Your task to perform on an android device: Search for razer deathadder on walmart, select the first entry, and add it to the cart. Image 0: 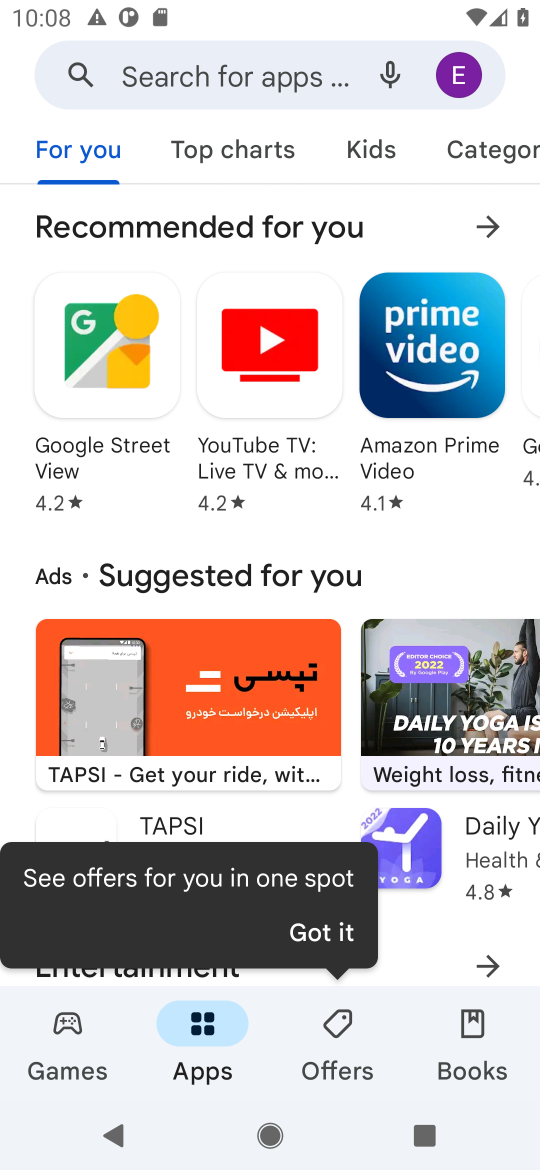
Step 0: press home button
Your task to perform on an android device: Search for razer deathadder on walmart, select the first entry, and add it to the cart. Image 1: 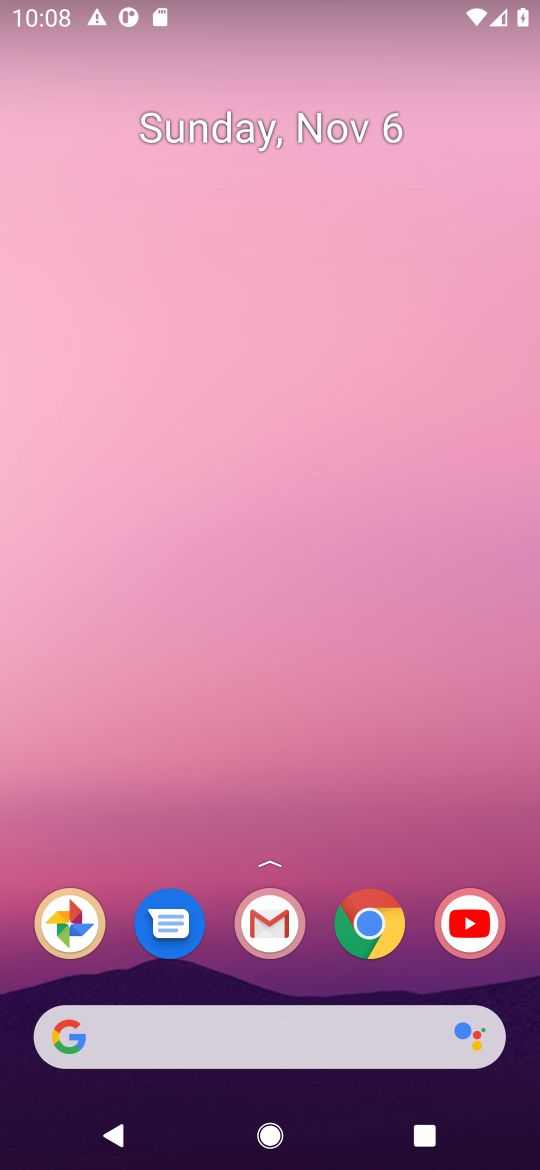
Step 1: click (380, 933)
Your task to perform on an android device: Search for razer deathadder on walmart, select the first entry, and add it to the cart. Image 2: 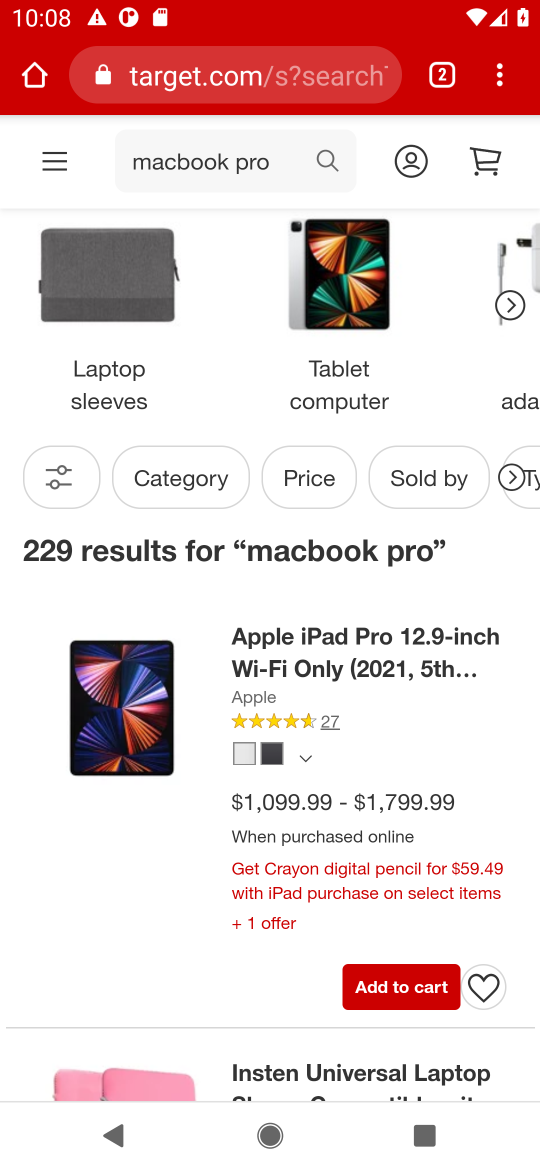
Step 2: click (251, 69)
Your task to perform on an android device: Search for razer deathadder on walmart, select the first entry, and add it to the cart. Image 3: 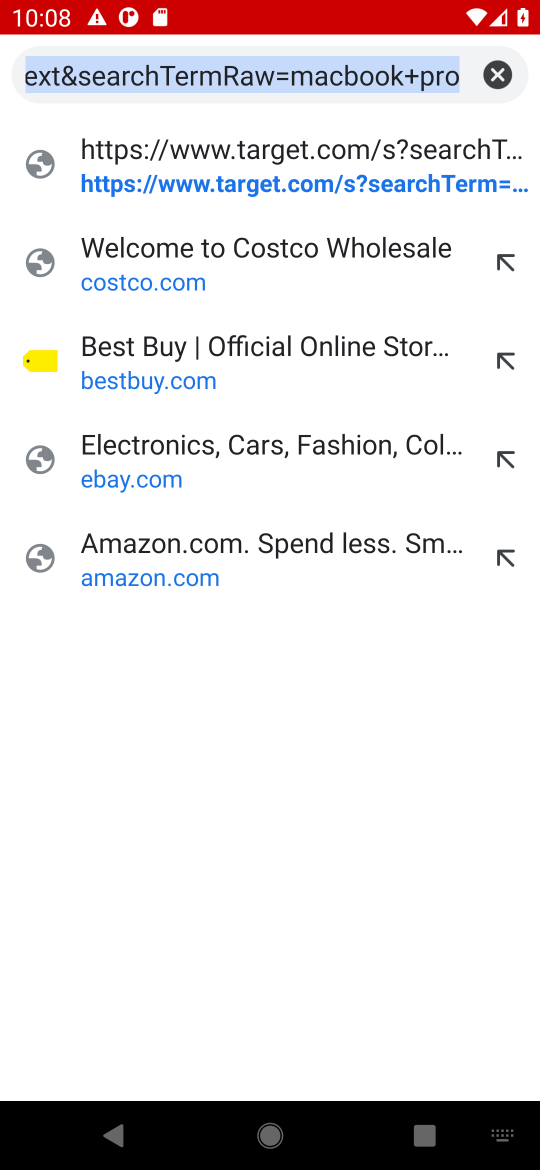
Step 3: type "walmart.com"
Your task to perform on an android device: Search for razer deathadder on walmart, select the first entry, and add it to the cart. Image 4: 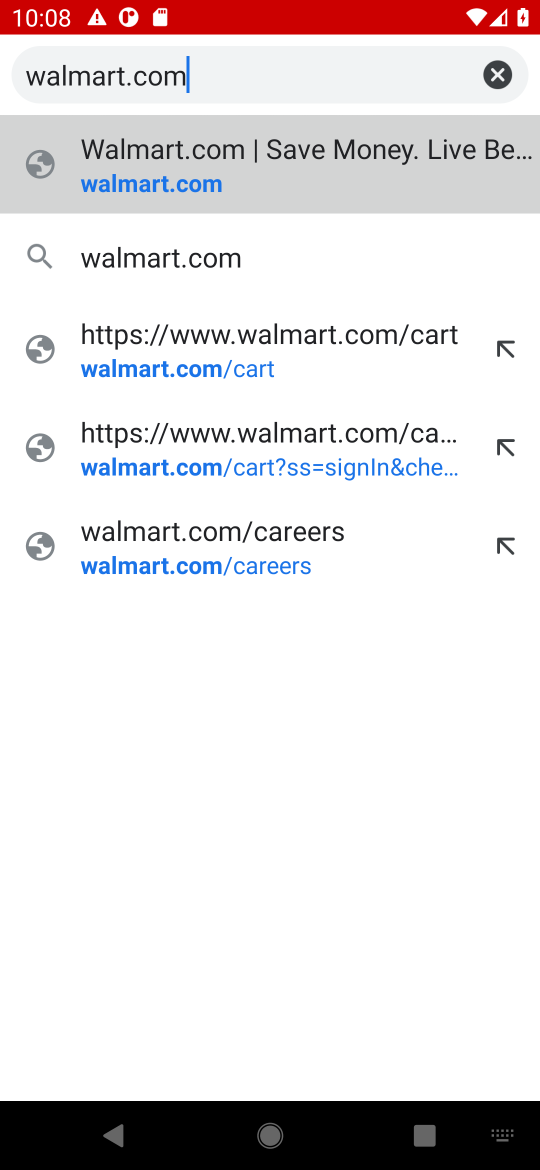
Step 4: click (158, 186)
Your task to perform on an android device: Search for razer deathadder on walmart, select the first entry, and add it to the cart. Image 5: 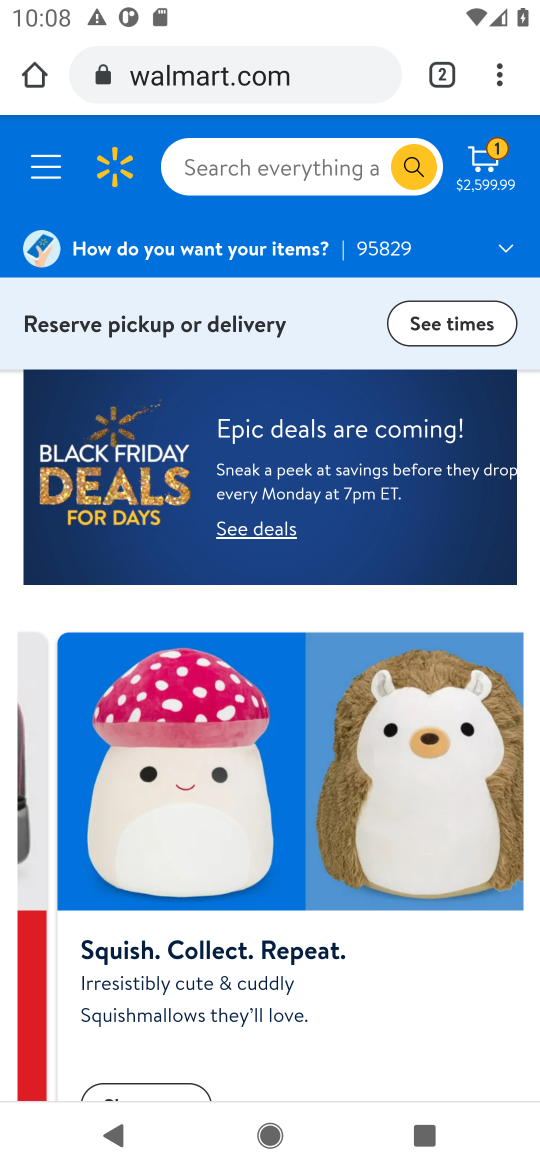
Step 5: click (283, 170)
Your task to perform on an android device: Search for razer deathadder on walmart, select the first entry, and add it to the cart. Image 6: 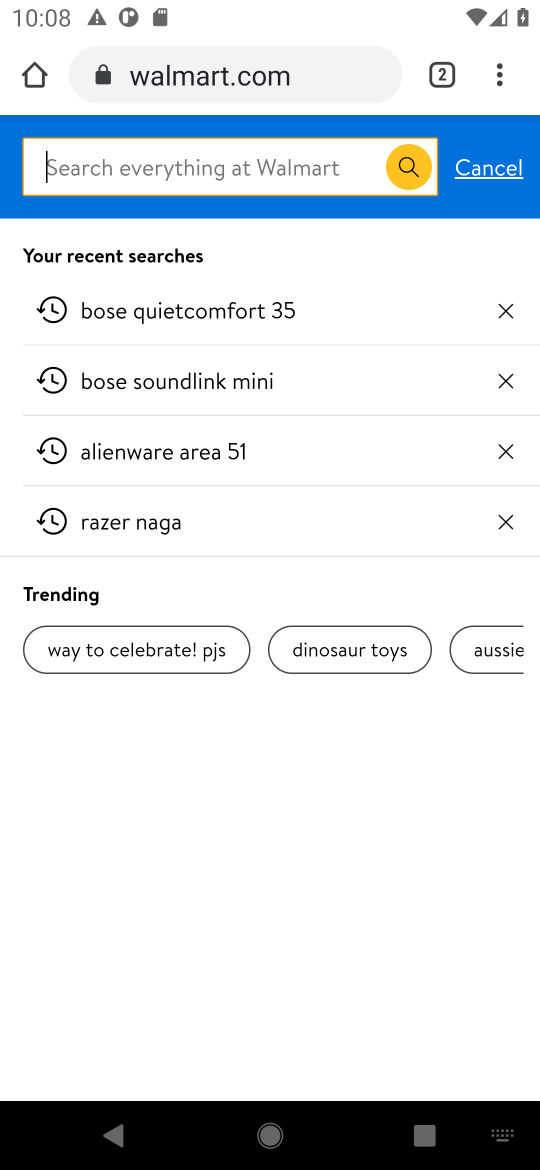
Step 6: type " razer deathadder"
Your task to perform on an android device: Search for razer deathadder on walmart, select the first entry, and add it to the cart. Image 7: 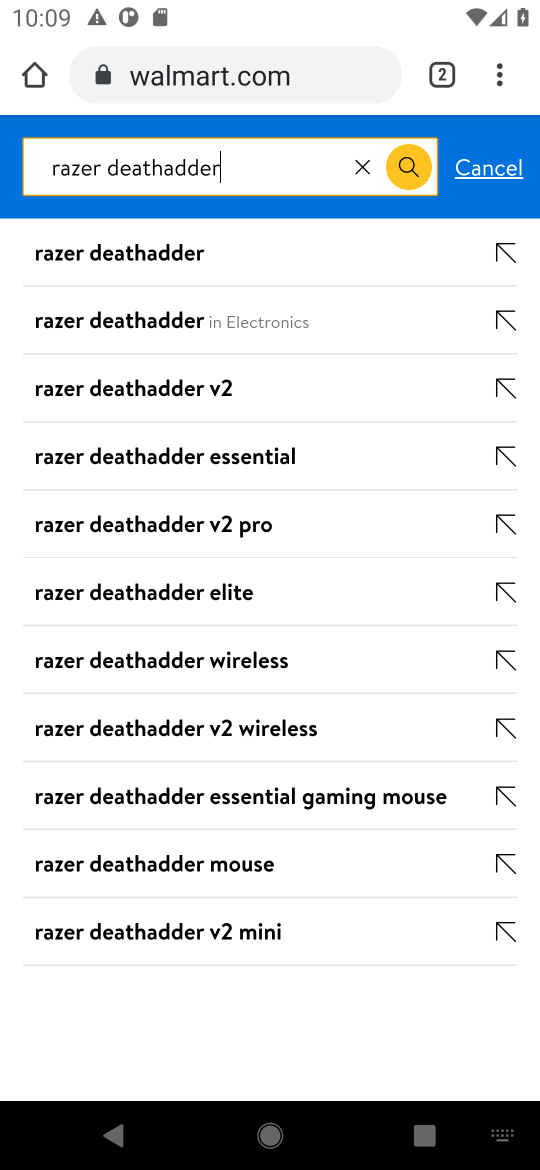
Step 7: click (168, 256)
Your task to perform on an android device: Search for razer deathadder on walmart, select the first entry, and add it to the cart. Image 8: 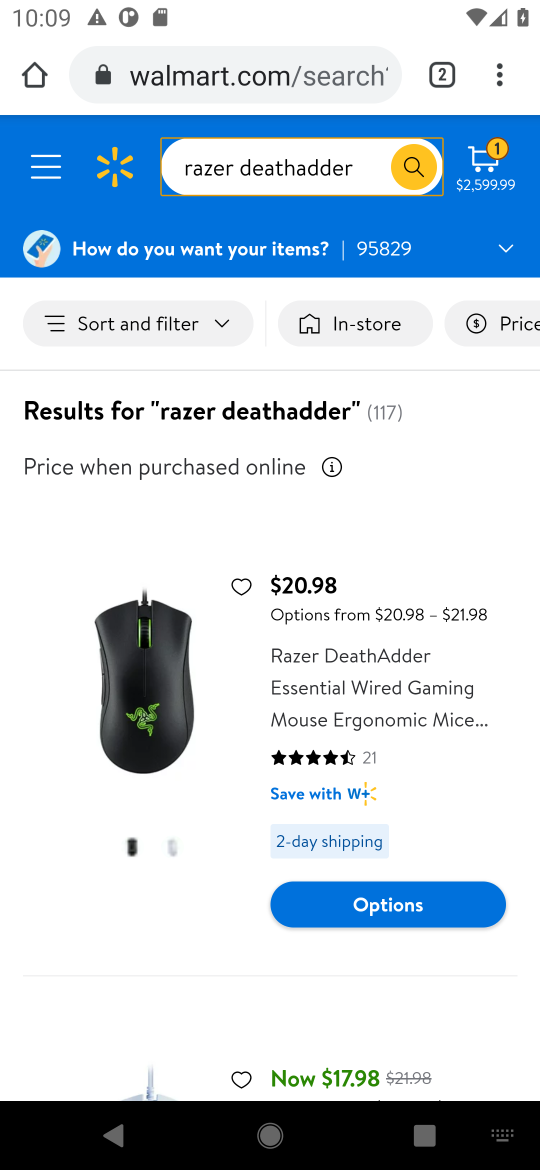
Step 8: click (184, 696)
Your task to perform on an android device: Search for razer deathadder on walmart, select the first entry, and add it to the cart. Image 9: 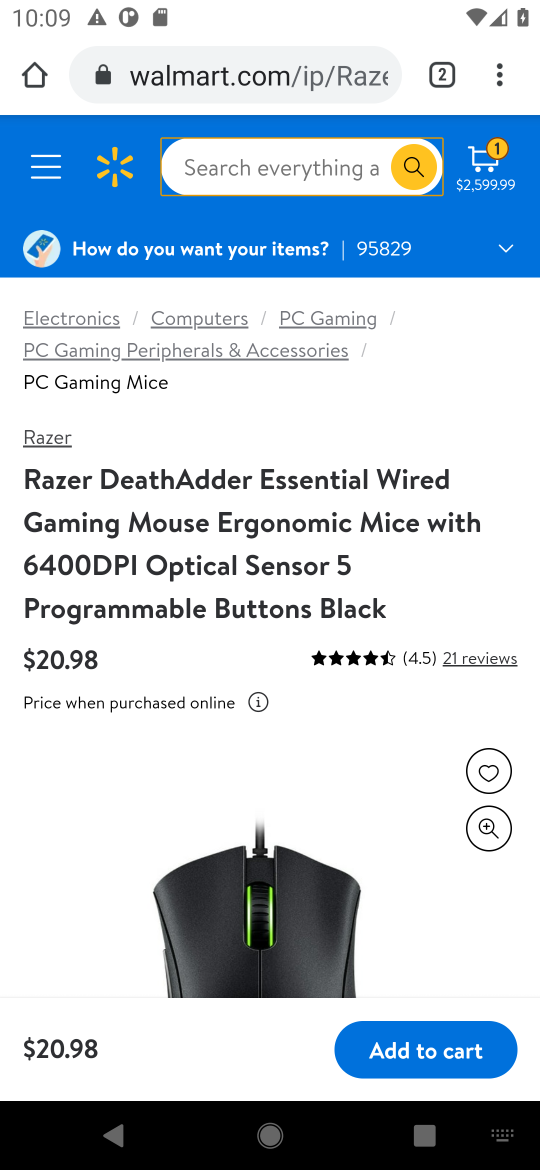
Step 9: click (128, 681)
Your task to perform on an android device: Search for razer deathadder on walmart, select the first entry, and add it to the cart. Image 10: 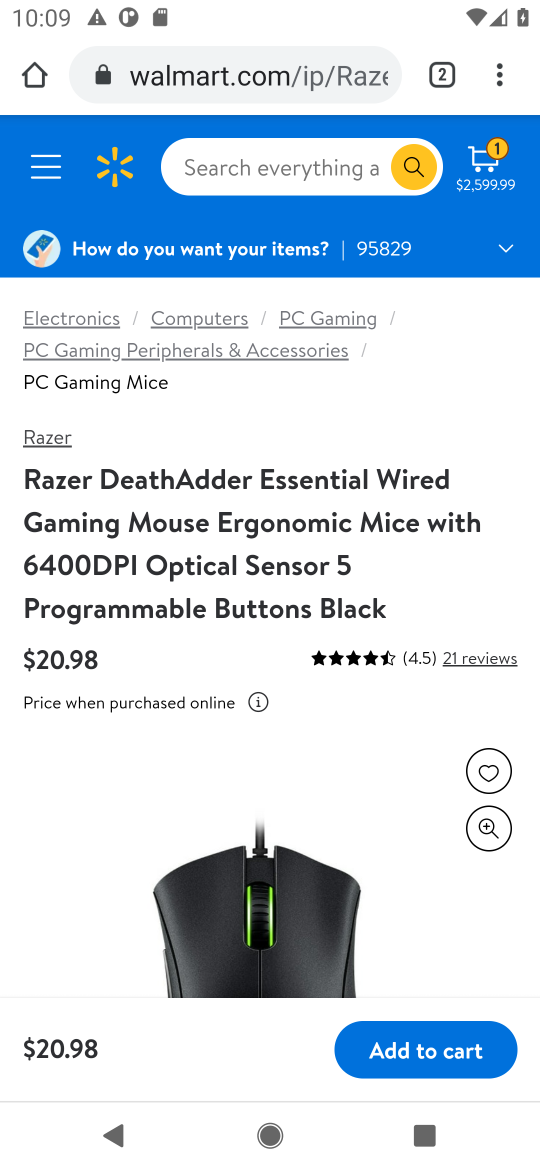
Step 10: drag from (174, 761) to (219, 397)
Your task to perform on an android device: Search for razer deathadder on walmart, select the first entry, and add it to the cart. Image 11: 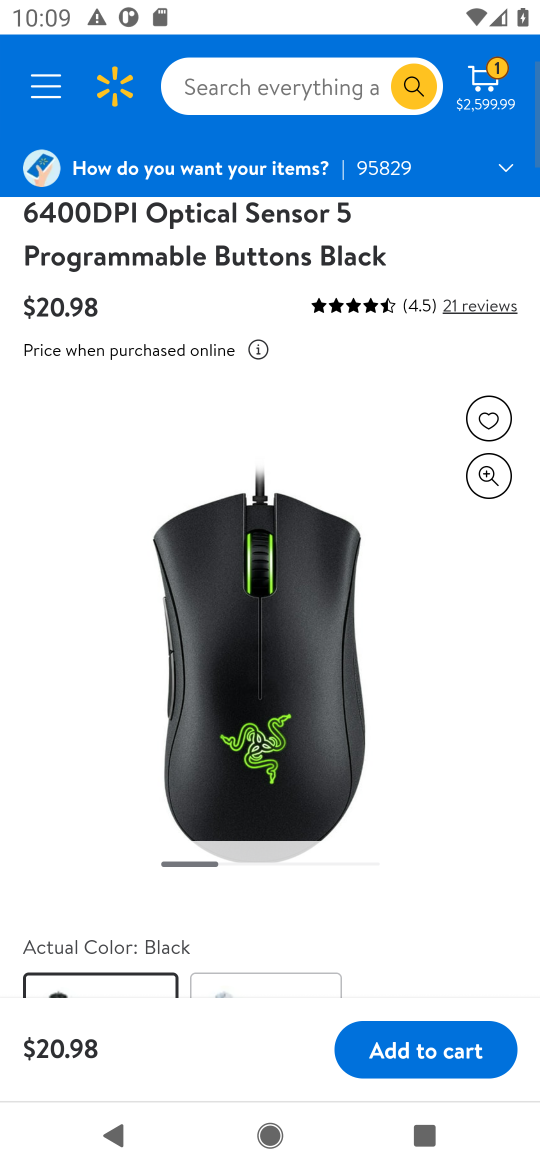
Step 11: click (453, 1042)
Your task to perform on an android device: Search for razer deathadder on walmart, select the first entry, and add it to the cart. Image 12: 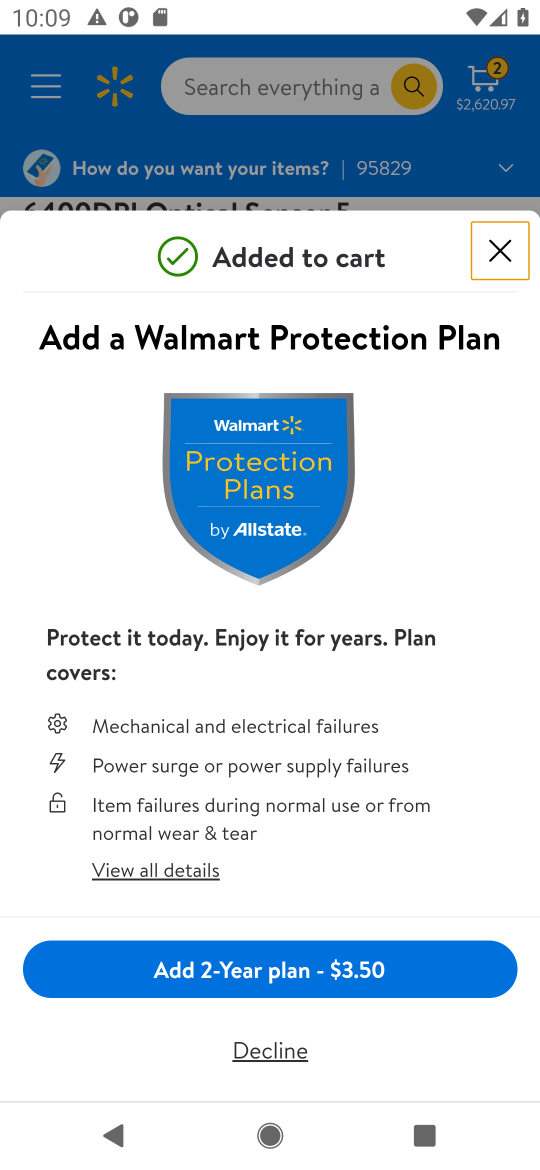
Step 12: task complete